Your task to perform on an android device: snooze an email in the gmail app Image 0: 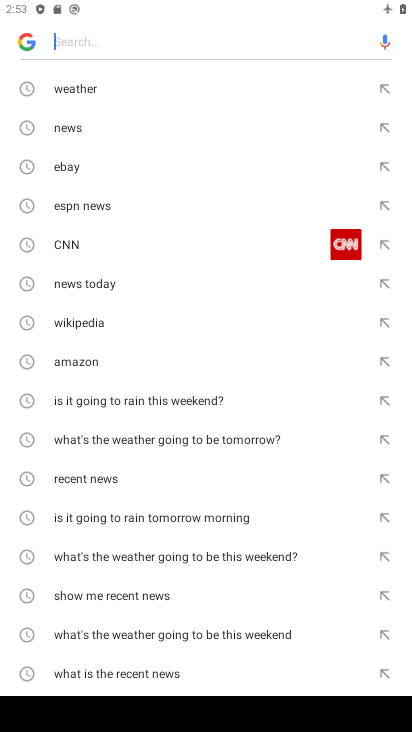
Step 0: press home button
Your task to perform on an android device: snooze an email in the gmail app Image 1: 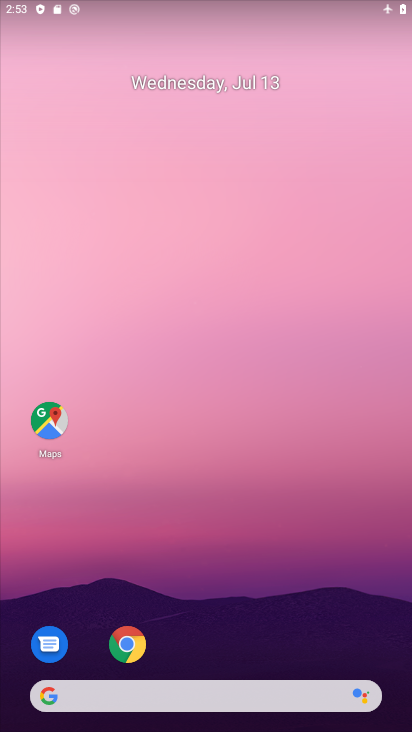
Step 1: drag from (197, 708) to (167, 108)
Your task to perform on an android device: snooze an email in the gmail app Image 2: 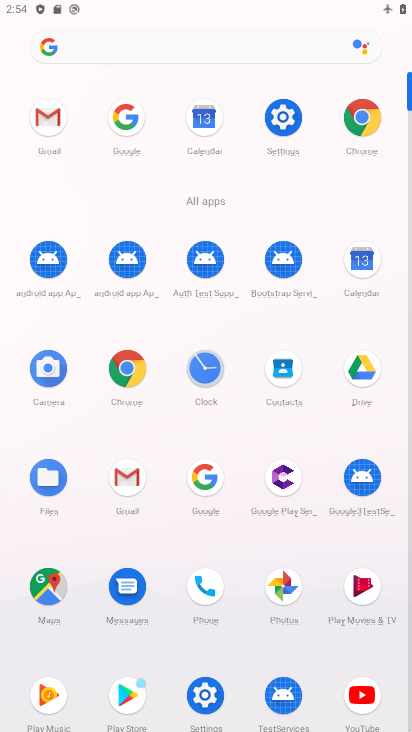
Step 2: click (50, 115)
Your task to perform on an android device: snooze an email in the gmail app Image 3: 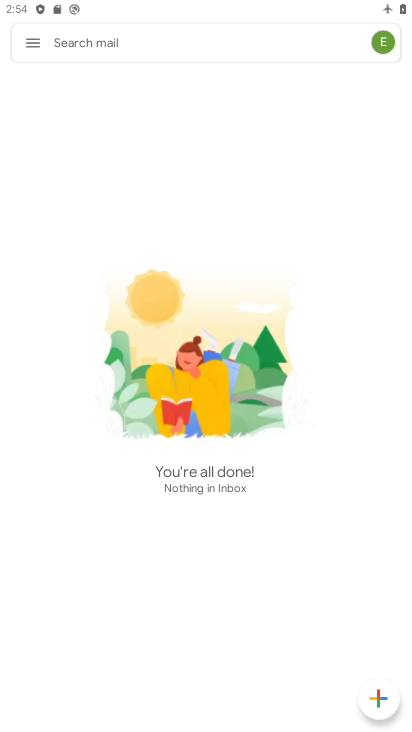
Step 3: click (30, 49)
Your task to perform on an android device: snooze an email in the gmail app Image 4: 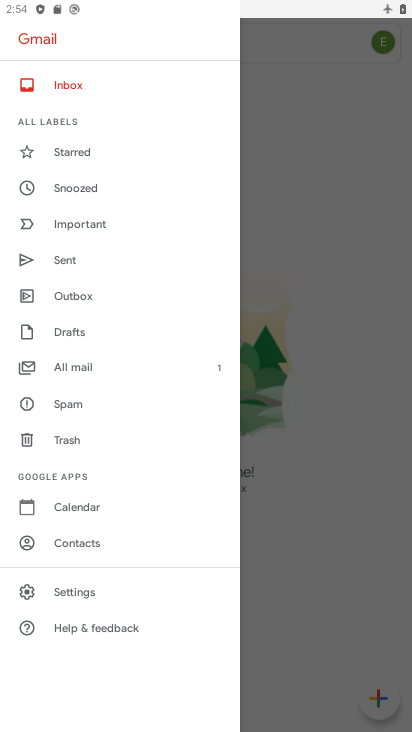
Step 4: click (77, 364)
Your task to perform on an android device: snooze an email in the gmail app Image 5: 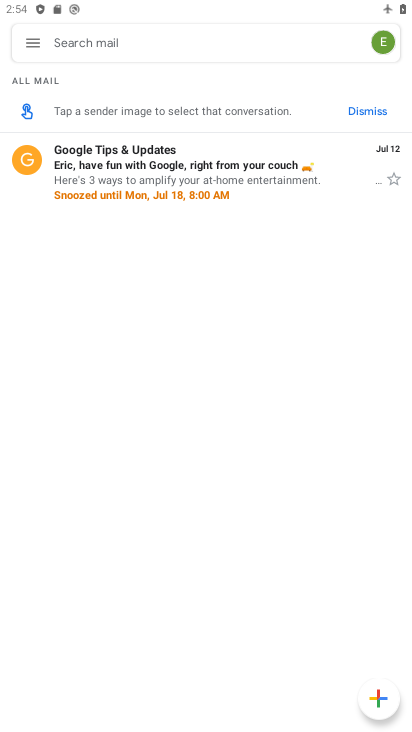
Step 5: task complete